Your task to perform on an android device: find snoozed emails in the gmail app Image 0: 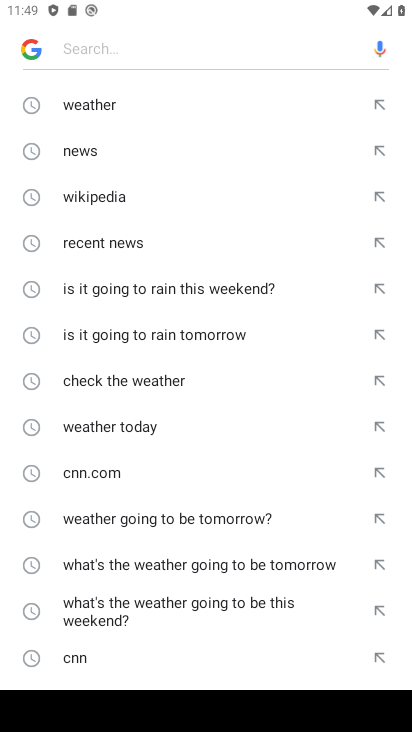
Step 0: press home button
Your task to perform on an android device: find snoozed emails in the gmail app Image 1: 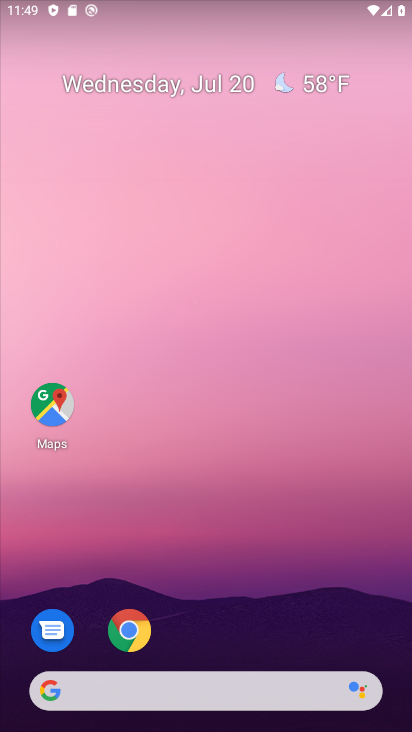
Step 1: drag from (194, 704) to (185, 33)
Your task to perform on an android device: find snoozed emails in the gmail app Image 2: 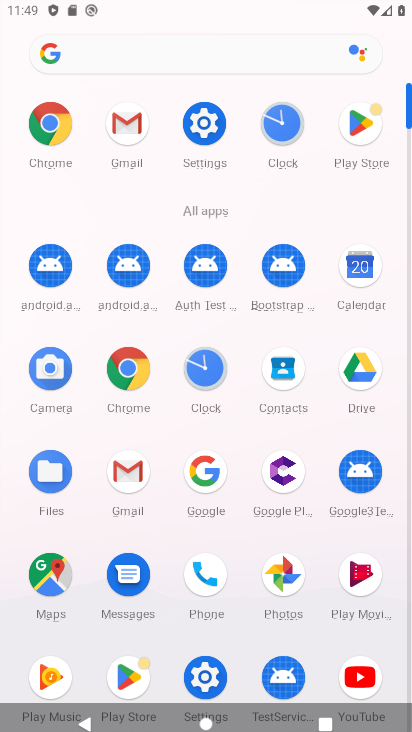
Step 2: click (137, 480)
Your task to perform on an android device: find snoozed emails in the gmail app Image 3: 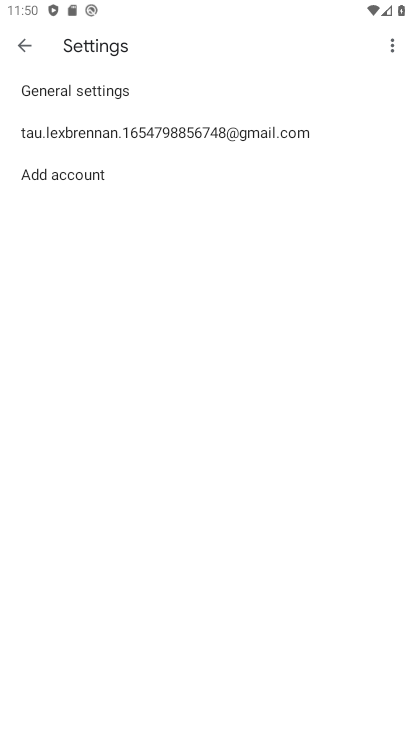
Step 3: click (22, 51)
Your task to perform on an android device: find snoozed emails in the gmail app Image 4: 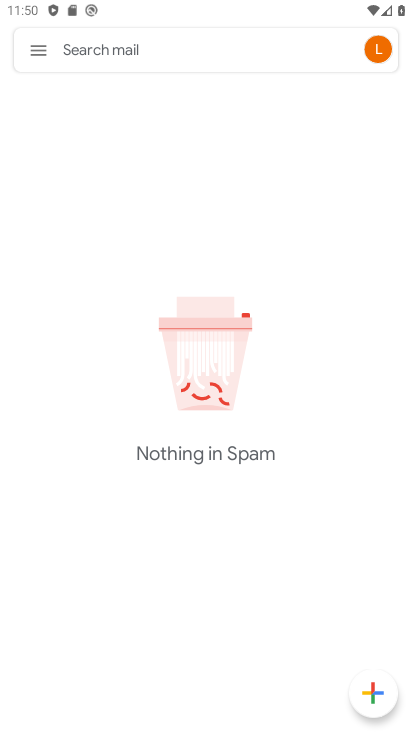
Step 4: click (46, 39)
Your task to perform on an android device: find snoozed emails in the gmail app Image 5: 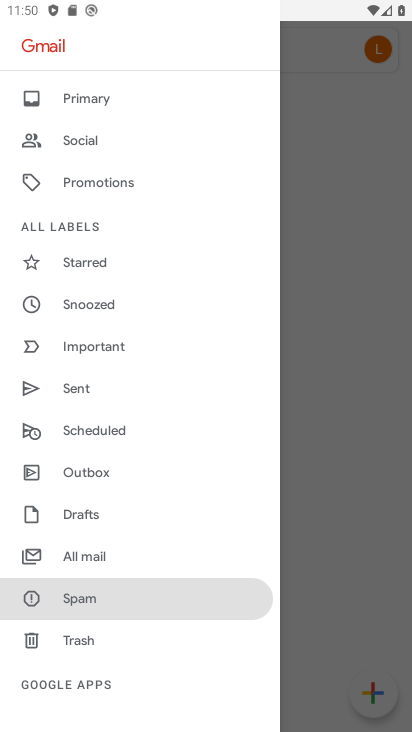
Step 5: click (103, 305)
Your task to perform on an android device: find snoozed emails in the gmail app Image 6: 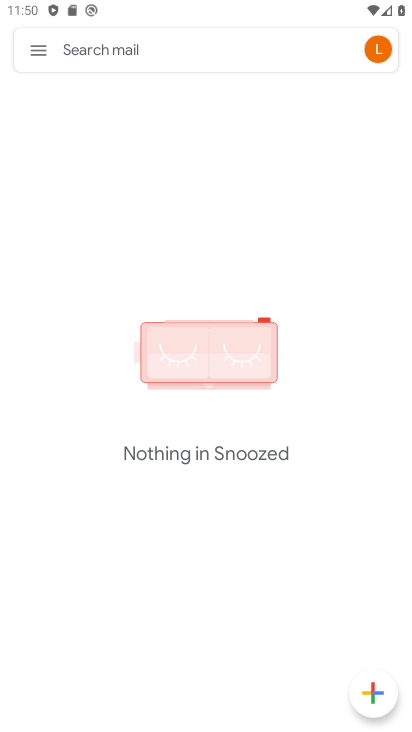
Step 6: task complete